Your task to perform on an android device: change the clock style Image 0: 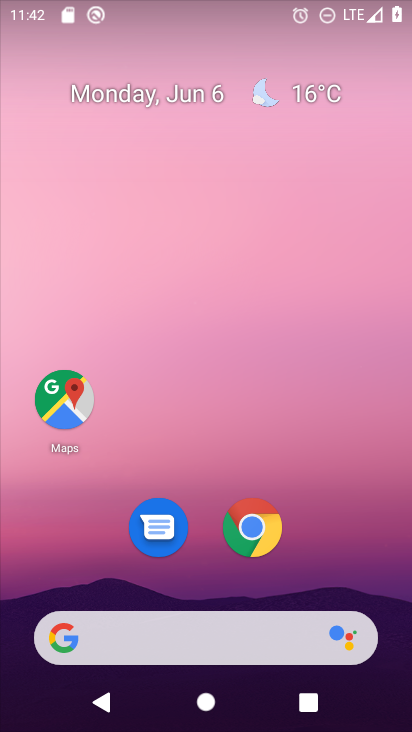
Step 0: drag from (377, 535) to (357, 136)
Your task to perform on an android device: change the clock style Image 1: 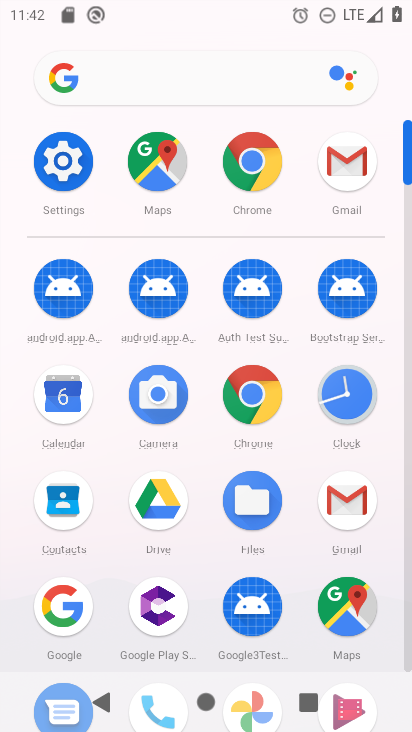
Step 1: click (358, 402)
Your task to perform on an android device: change the clock style Image 2: 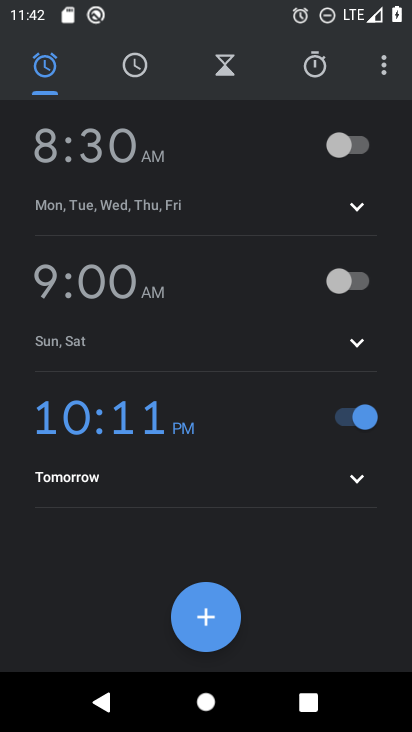
Step 2: click (386, 74)
Your task to perform on an android device: change the clock style Image 3: 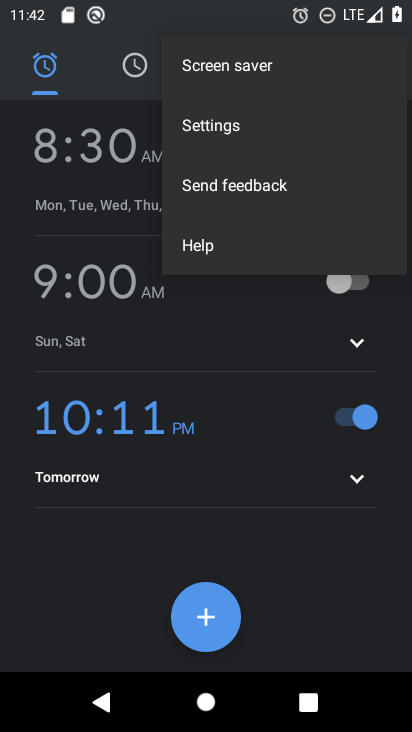
Step 3: click (244, 131)
Your task to perform on an android device: change the clock style Image 4: 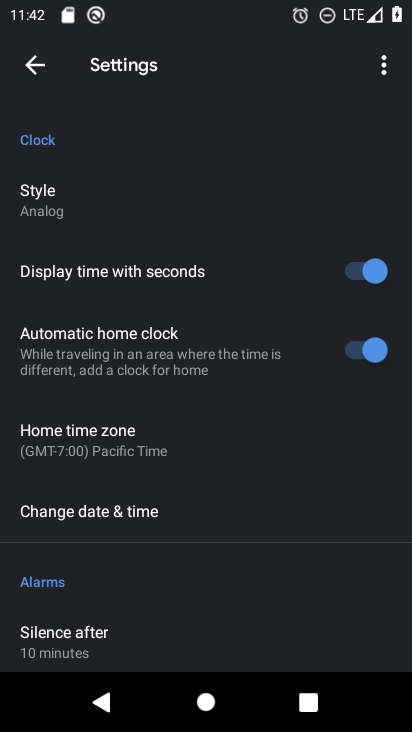
Step 4: drag from (244, 444) to (259, 289)
Your task to perform on an android device: change the clock style Image 5: 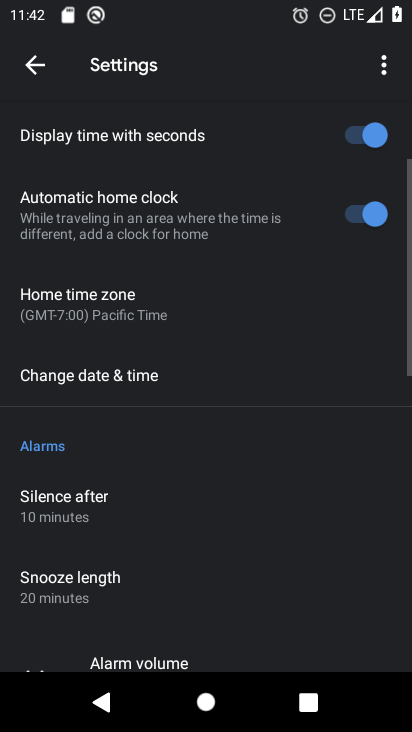
Step 5: drag from (264, 440) to (271, 279)
Your task to perform on an android device: change the clock style Image 6: 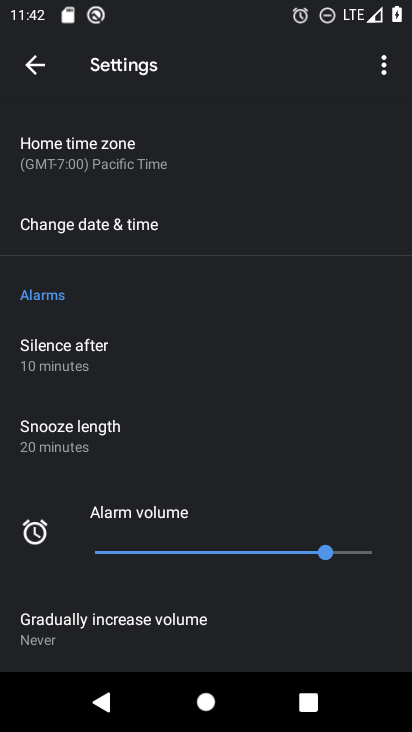
Step 6: drag from (273, 436) to (273, 309)
Your task to perform on an android device: change the clock style Image 7: 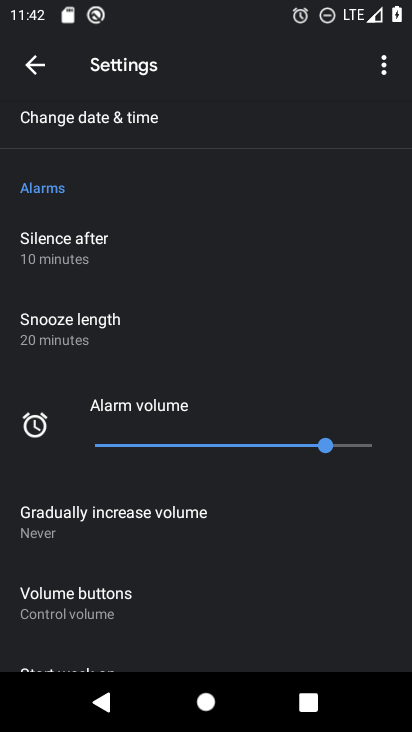
Step 7: drag from (284, 486) to (290, 332)
Your task to perform on an android device: change the clock style Image 8: 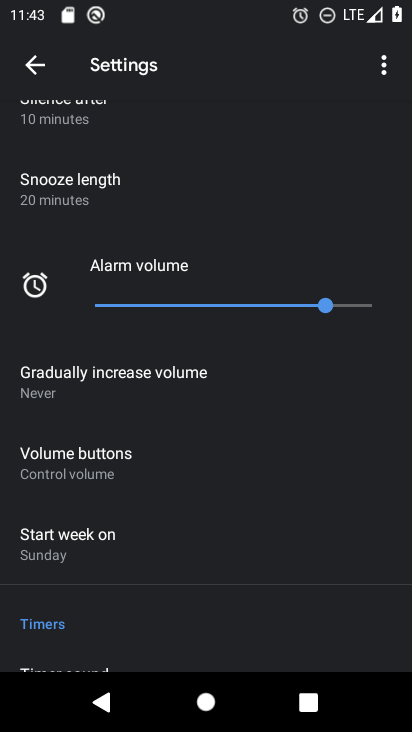
Step 8: drag from (285, 445) to (286, 279)
Your task to perform on an android device: change the clock style Image 9: 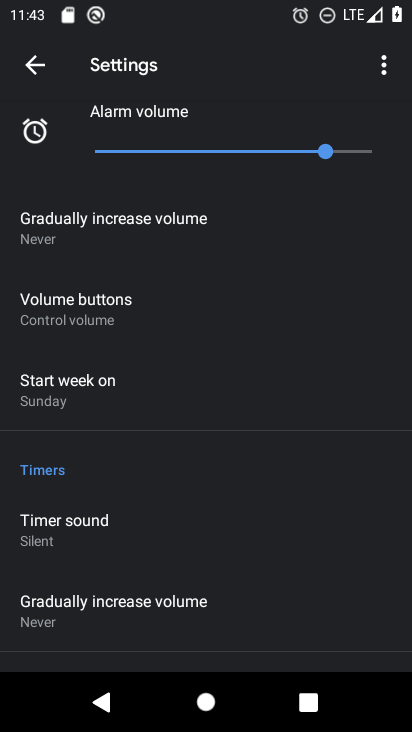
Step 9: drag from (308, 448) to (302, 274)
Your task to perform on an android device: change the clock style Image 10: 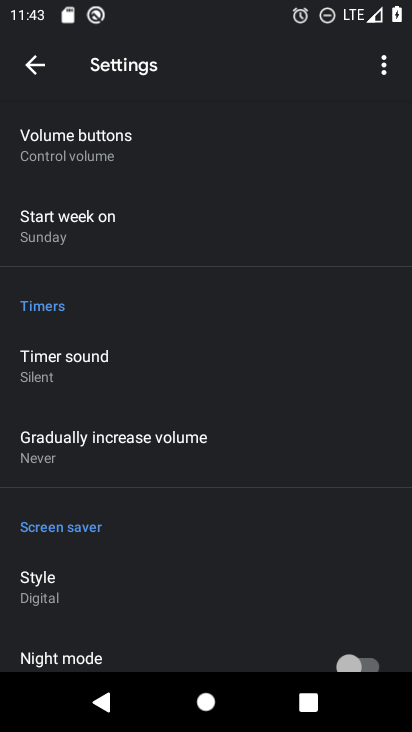
Step 10: drag from (293, 478) to (297, 284)
Your task to perform on an android device: change the clock style Image 11: 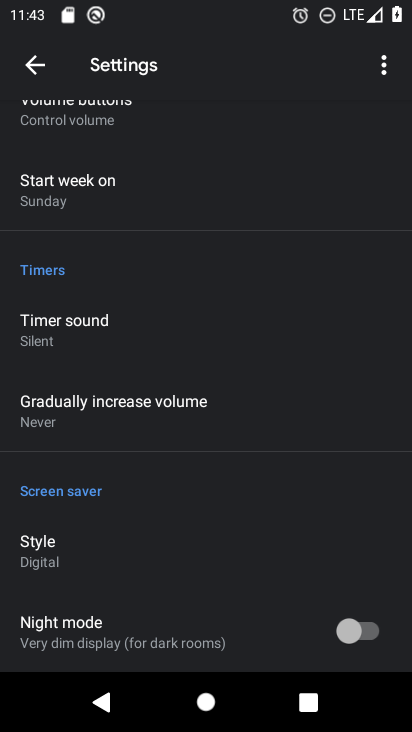
Step 11: drag from (287, 219) to (290, 375)
Your task to perform on an android device: change the clock style Image 12: 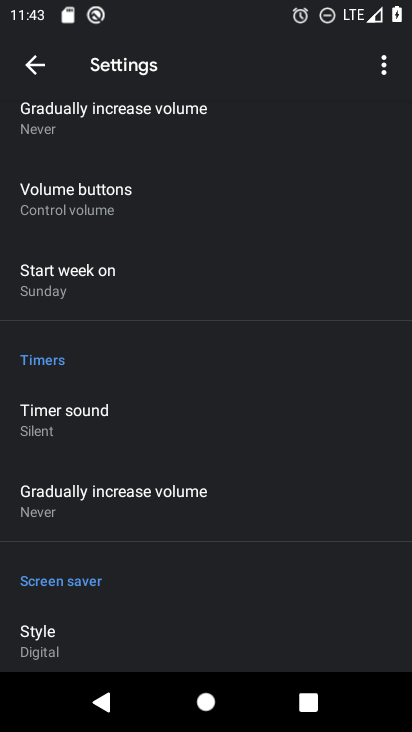
Step 12: drag from (282, 216) to (282, 347)
Your task to perform on an android device: change the clock style Image 13: 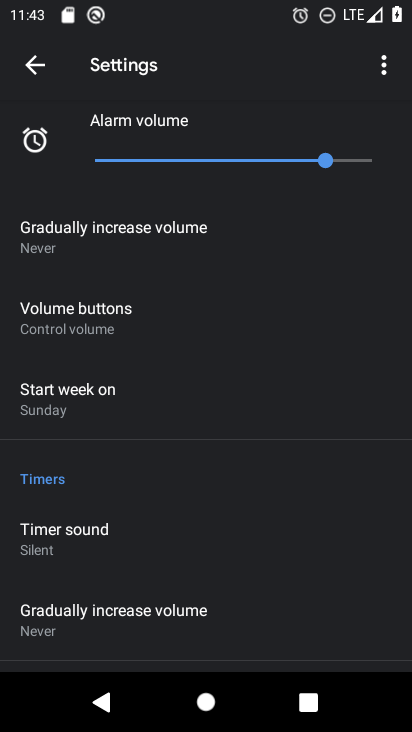
Step 13: drag from (281, 135) to (285, 335)
Your task to perform on an android device: change the clock style Image 14: 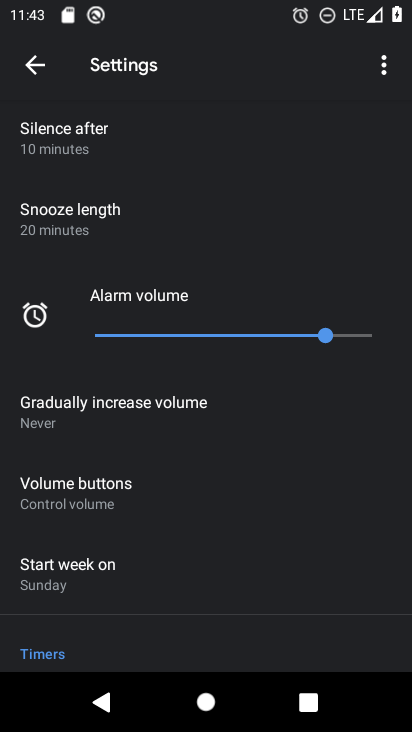
Step 14: drag from (287, 190) to (287, 339)
Your task to perform on an android device: change the clock style Image 15: 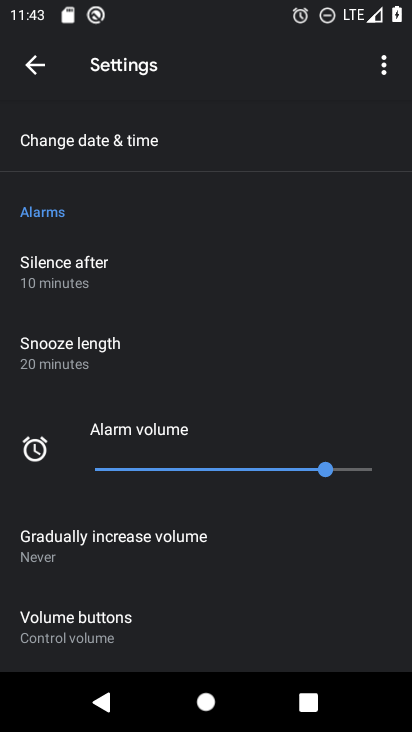
Step 15: drag from (289, 238) to (289, 354)
Your task to perform on an android device: change the clock style Image 16: 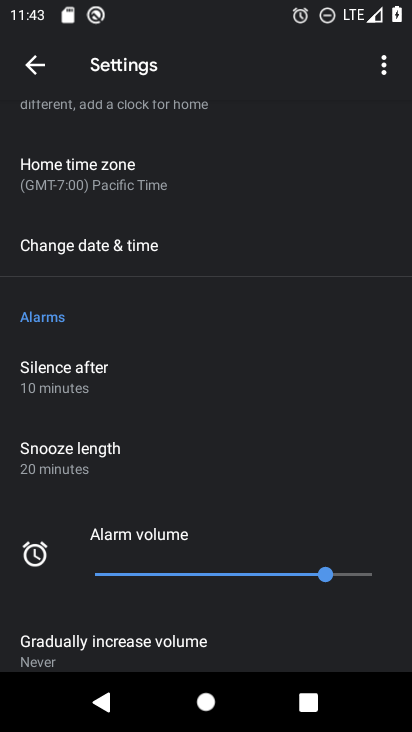
Step 16: drag from (296, 206) to (296, 405)
Your task to perform on an android device: change the clock style Image 17: 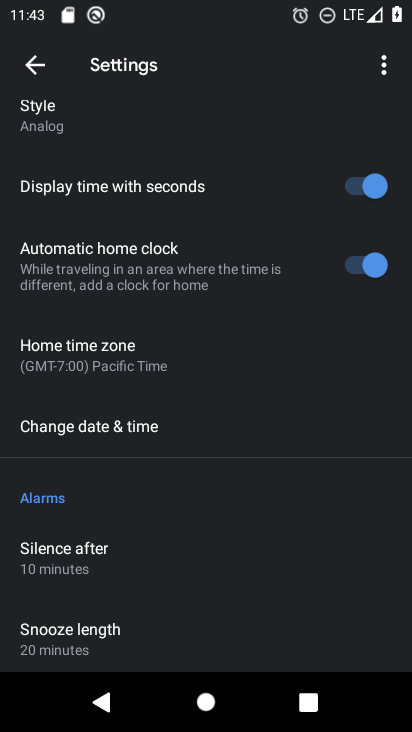
Step 17: drag from (266, 171) to (268, 378)
Your task to perform on an android device: change the clock style Image 18: 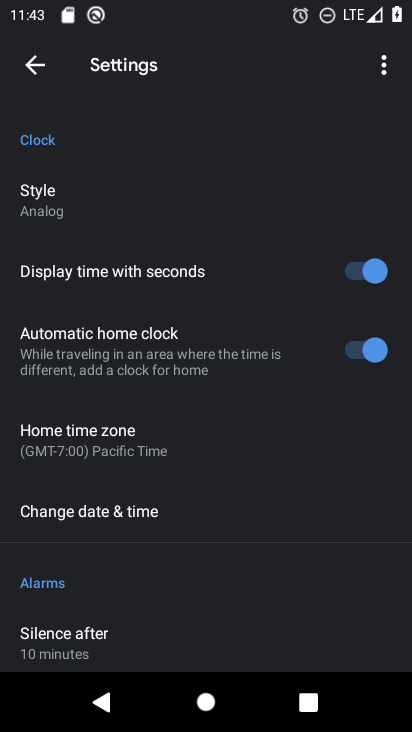
Step 18: click (74, 221)
Your task to perform on an android device: change the clock style Image 19: 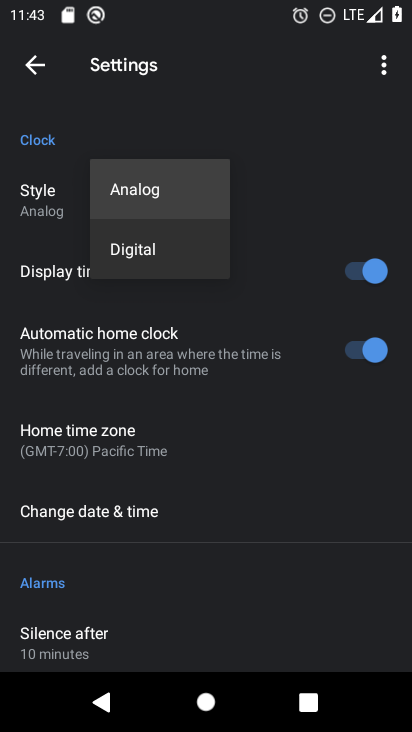
Step 19: click (161, 261)
Your task to perform on an android device: change the clock style Image 20: 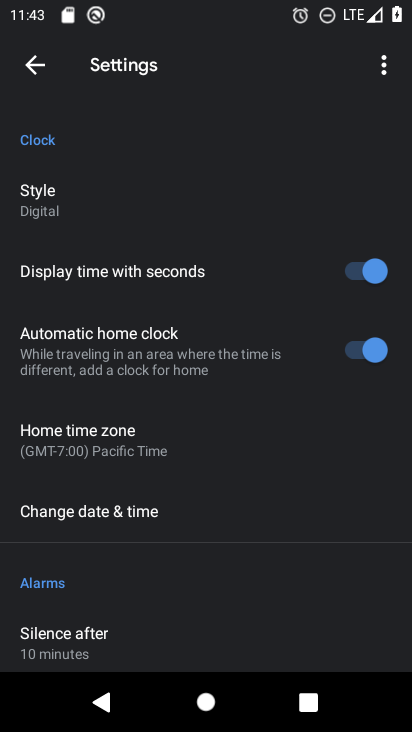
Step 20: task complete